Your task to perform on an android device: check data usage Image 0: 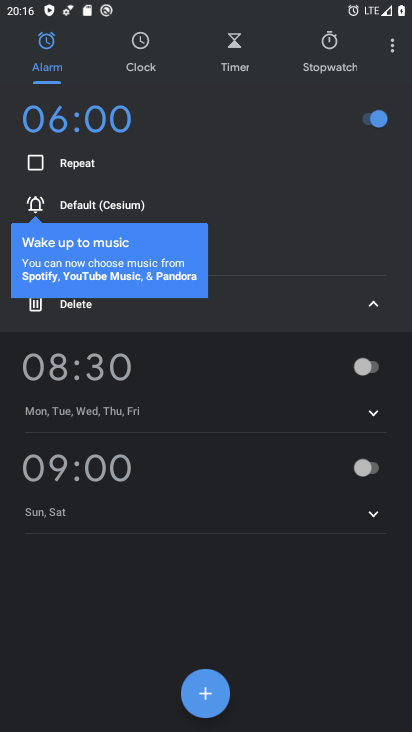
Step 0: press home button
Your task to perform on an android device: check data usage Image 1: 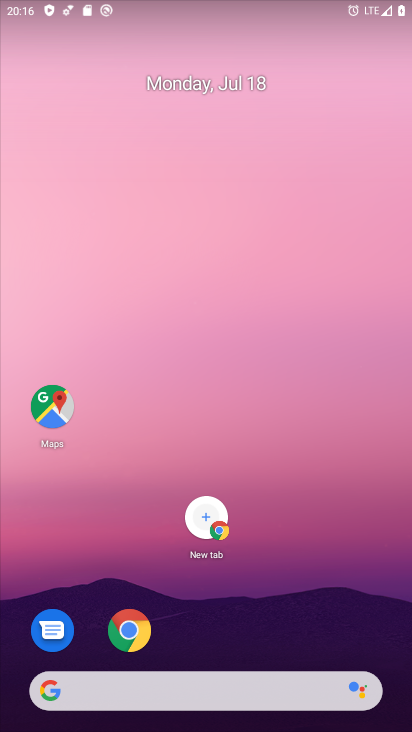
Step 1: drag from (292, 644) to (329, 264)
Your task to perform on an android device: check data usage Image 2: 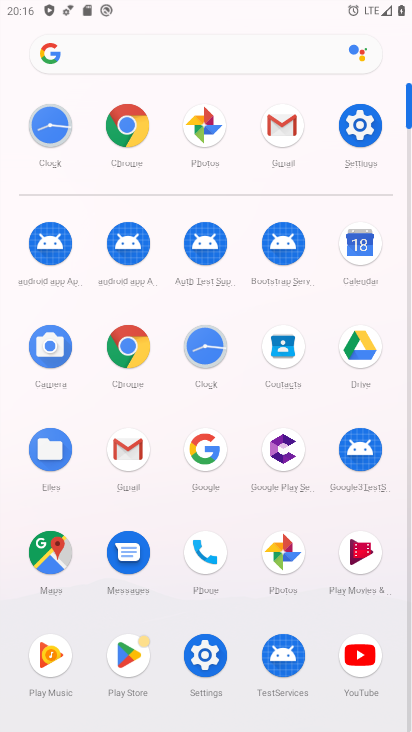
Step 2: click (354, 134)
Your task to perform on an android device: check data usage Image 3: 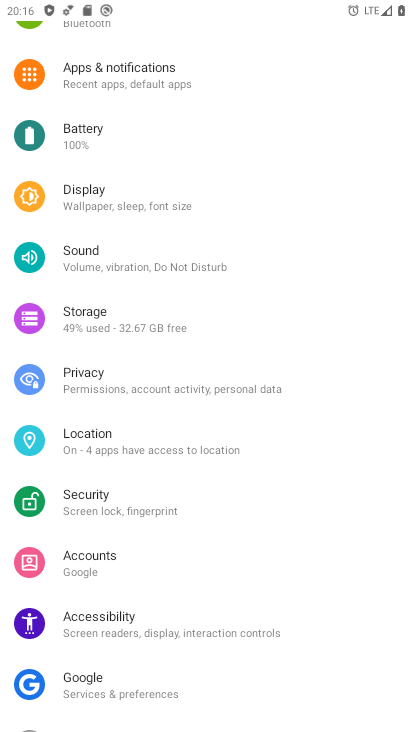
Step 3: drag from (155, 66) to (179, 529)
Your task to perform on an android device: check data usage Image 4: 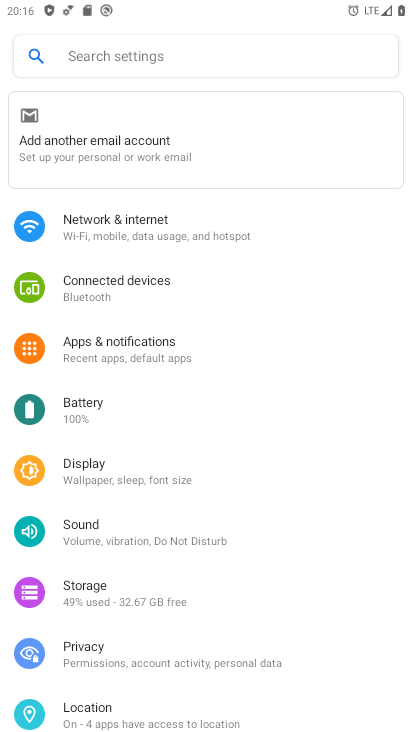
Step 4: click (121, 236)
Your task to perform on an android device: check data usage Image 5: 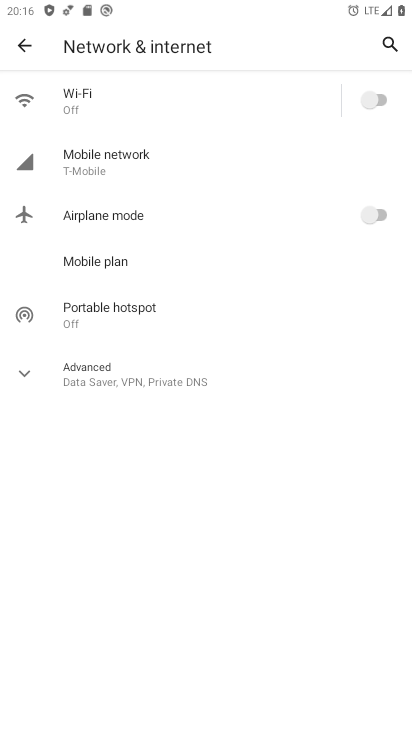
Step 5: click (84, 152)
Your task to perform on an android device: check data usage Image 6: 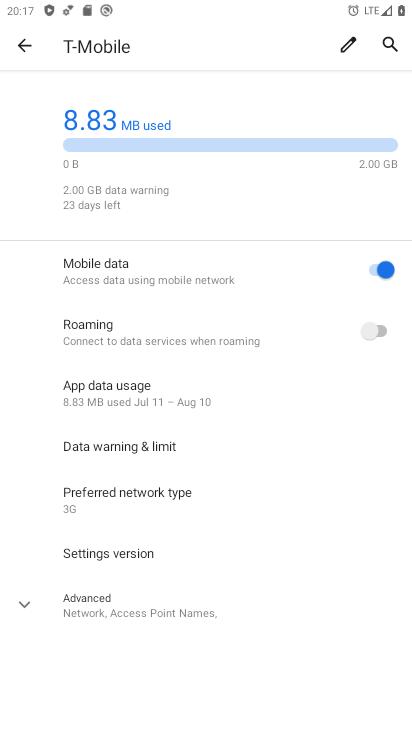
Step 6: task complete